Your task to perform on an android device: Open settings Image 0: 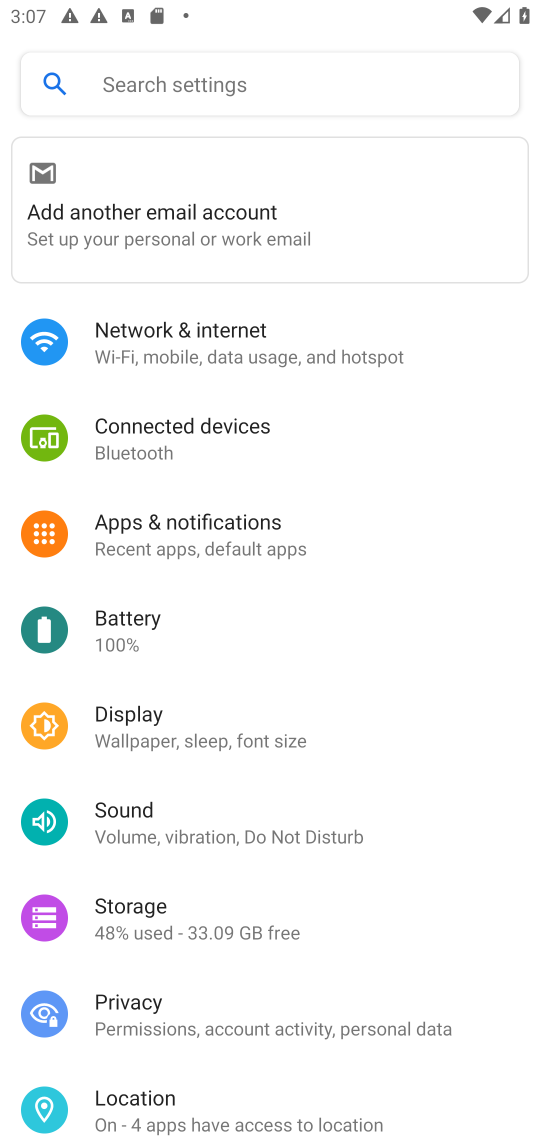
Step 0: drag from (216, 937) to (193, 214)
Your task to perform on an android device: Open settings Image 1: 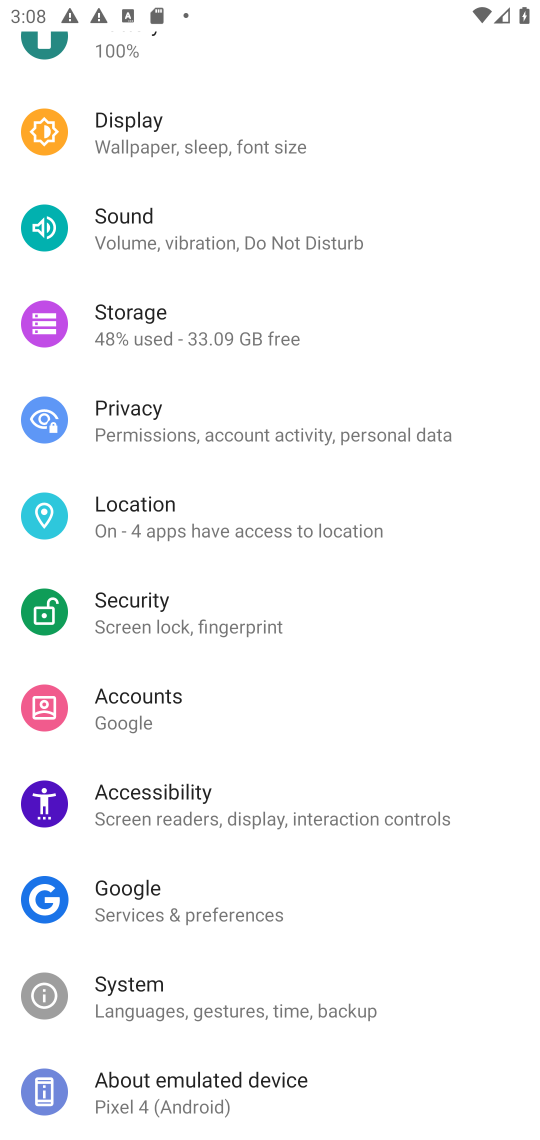
Step 1: task complete